Your task to perform on an android device: create a new album in the google photos Image 0: 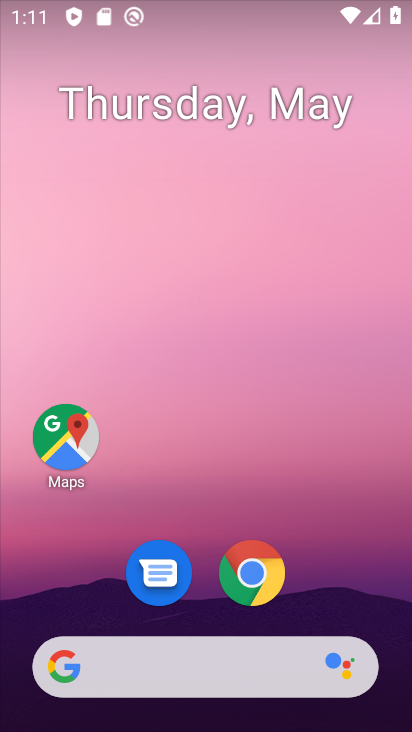
Step 0: drag from (298, 589) to (229, 143)
Your task to perform on an android device: create a new album in the google photos Image 1: 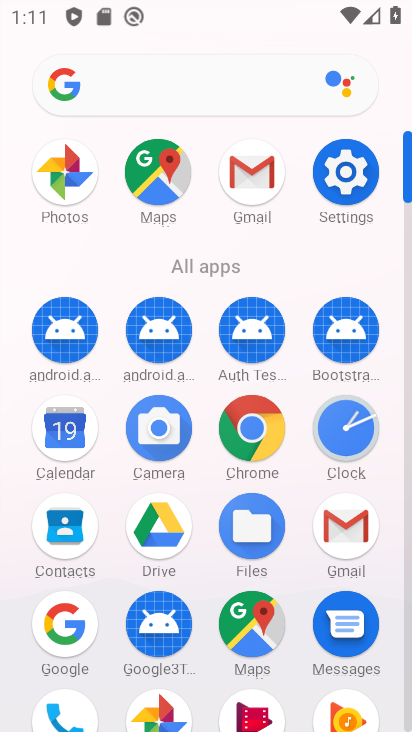
Step 1: click (58, 189)
Your task to perform on an android device: create a new album in the google photos Image 2: 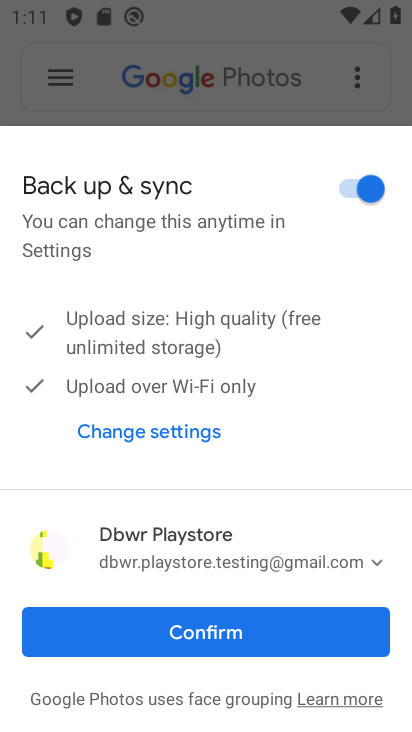
Step 2: drag from (103, 641) to (9, 465)
Your task to perform on an android device: create a new album in the google photos Image 3: 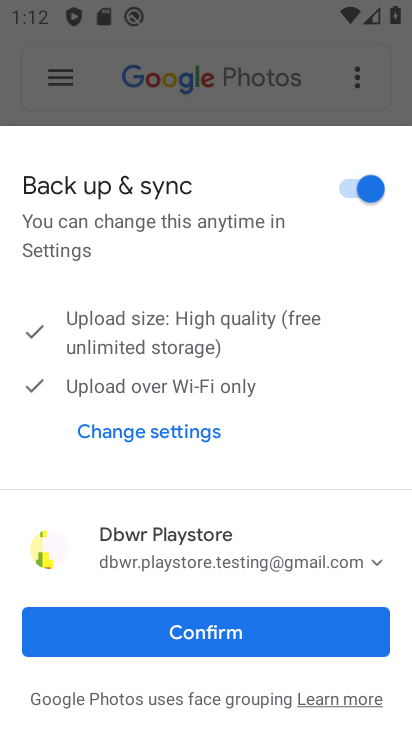
Step 3: click (285, 633)
Your task to perform on an android device: create a new album in the google photos Image 4: 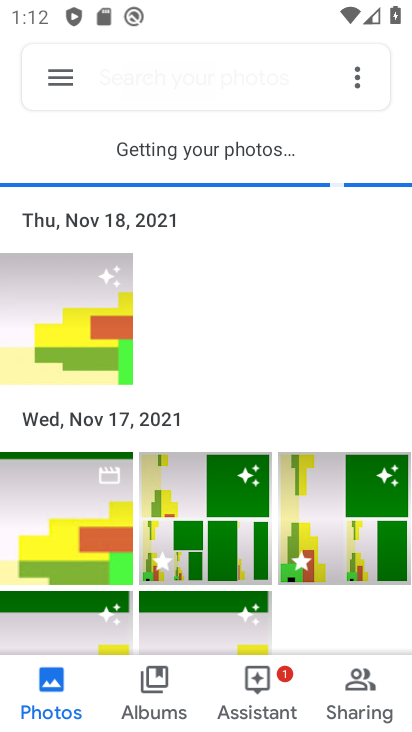
Step 4: click (50, 499)
Your task to perform on an android device: create a new album in the google photos Image 5: 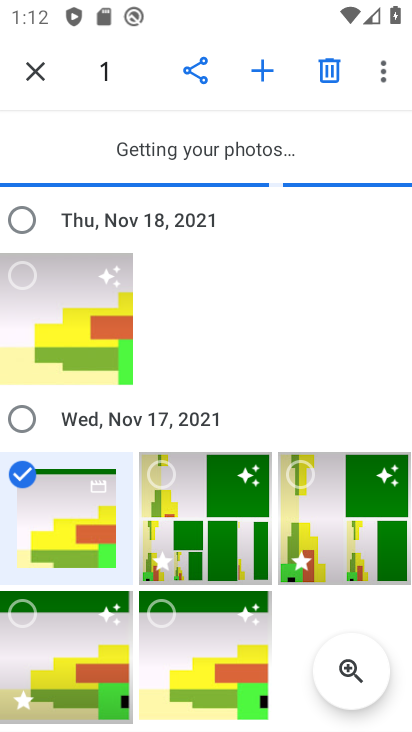
Step 5: click (158, 483)
Your task to perform on an android device: create a new album in the google photos Image 6: 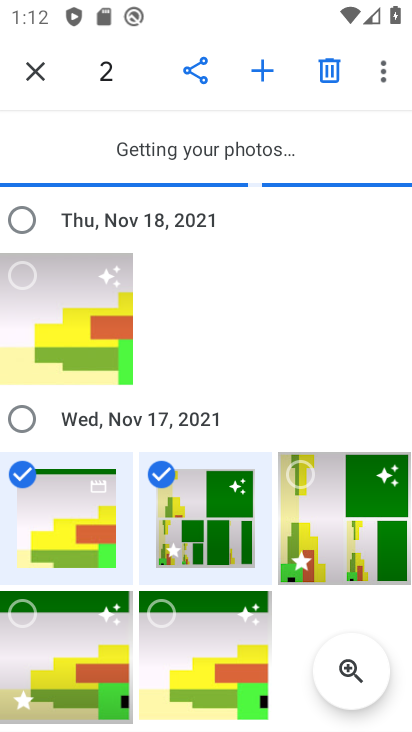
Step 6: click (265, 52)
Your task to perform on an android device: create a new album in the google photos Image 7: 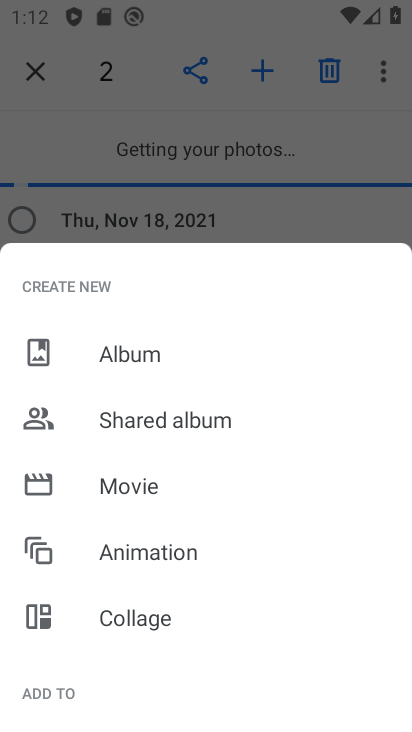
Step 7: click (120, 352)
Your task to perform on an android device: create a new album in the google photos Image 8: 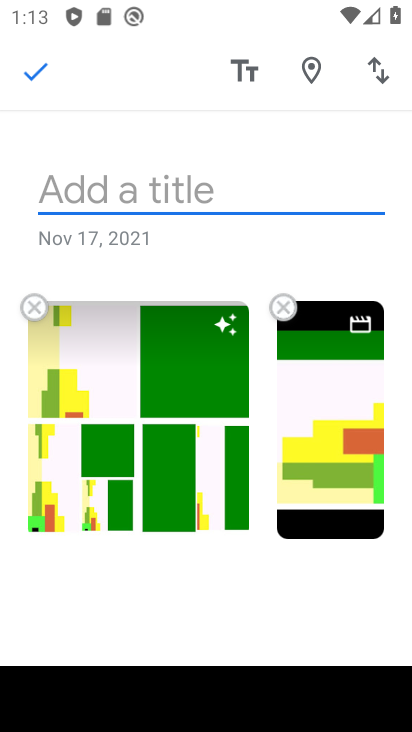
Step 8: type "jkkhg"
Your task to perform on an android device: create a new album in the google photos Image 9: 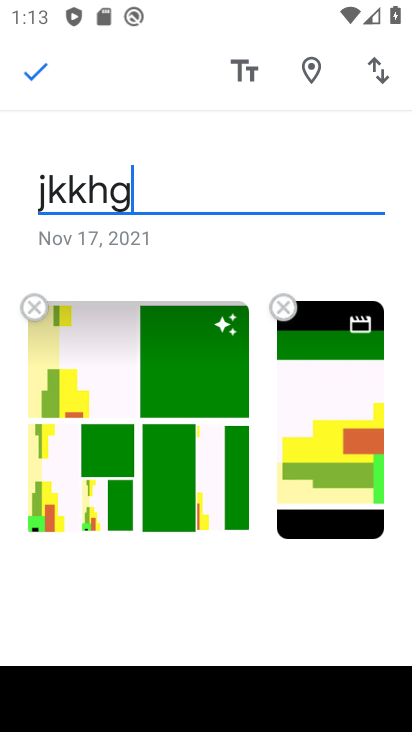
Step 9: click (28, 71)
Your task to perform on an android device: create a new album in the google photos Image 10: 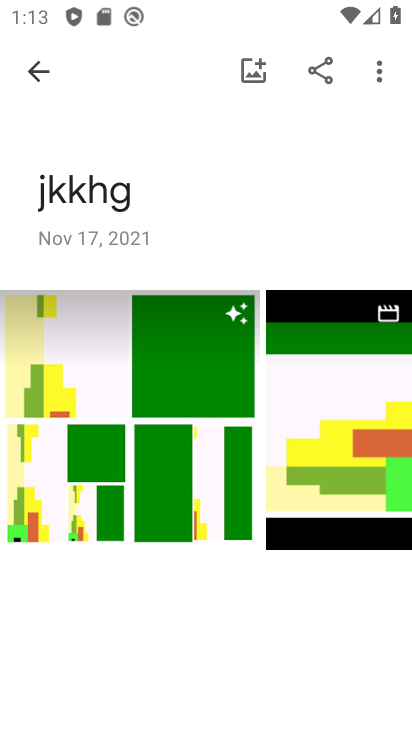
Step 10: task complete